Your task to perform on an android device: Search for Mexican restaurants on Maps Image 0: 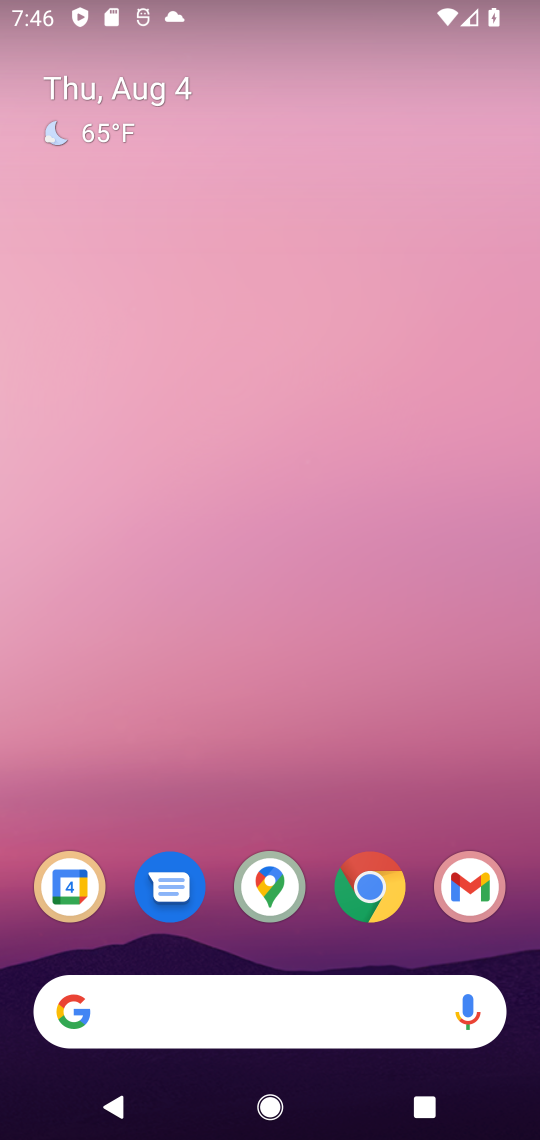
Step 0: drag from (211, 739) to (148, 256)
Your task to perform on an android device: Search for Mexican restaurants on Maps Image 1: 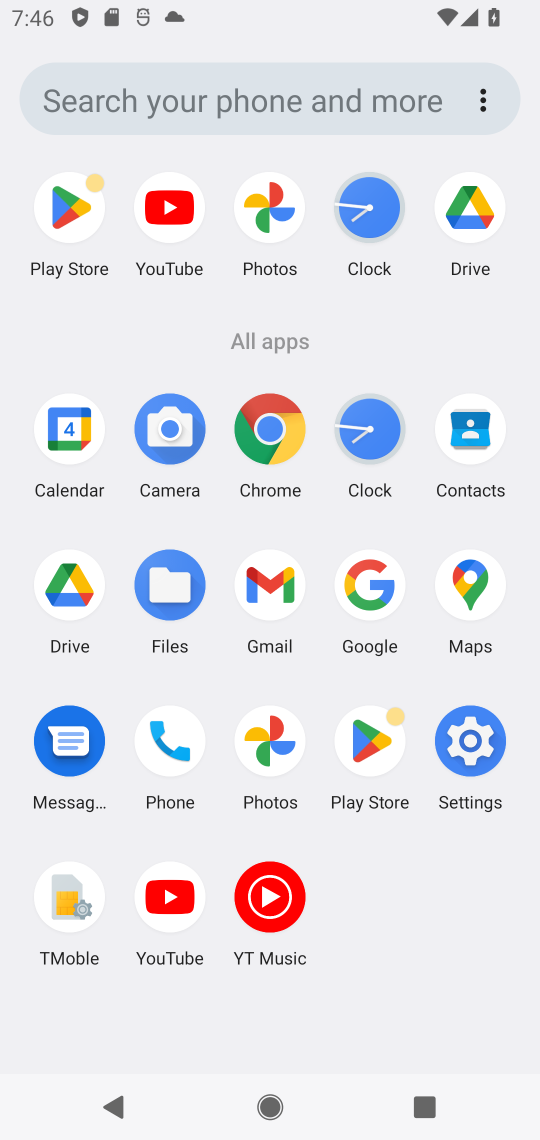
Step 1: click (475, 580)
Your task to perform on an android device: Search for Mexican restaurants on Maps Image 2: 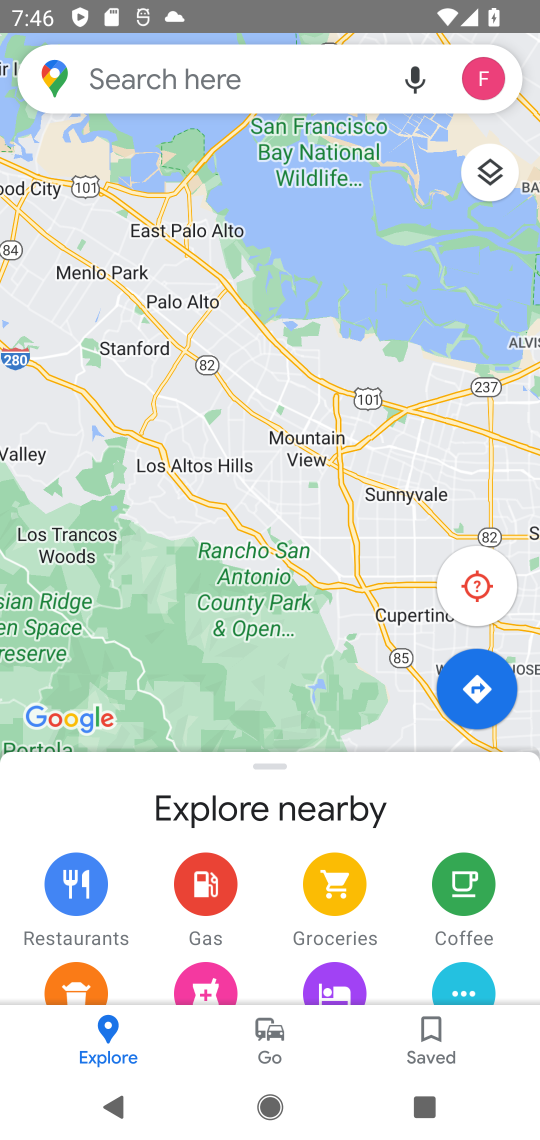
Step 2: click (178, 75)
Your task to perform on an android device: Search for Mexican restaurants on Maps Image 3: 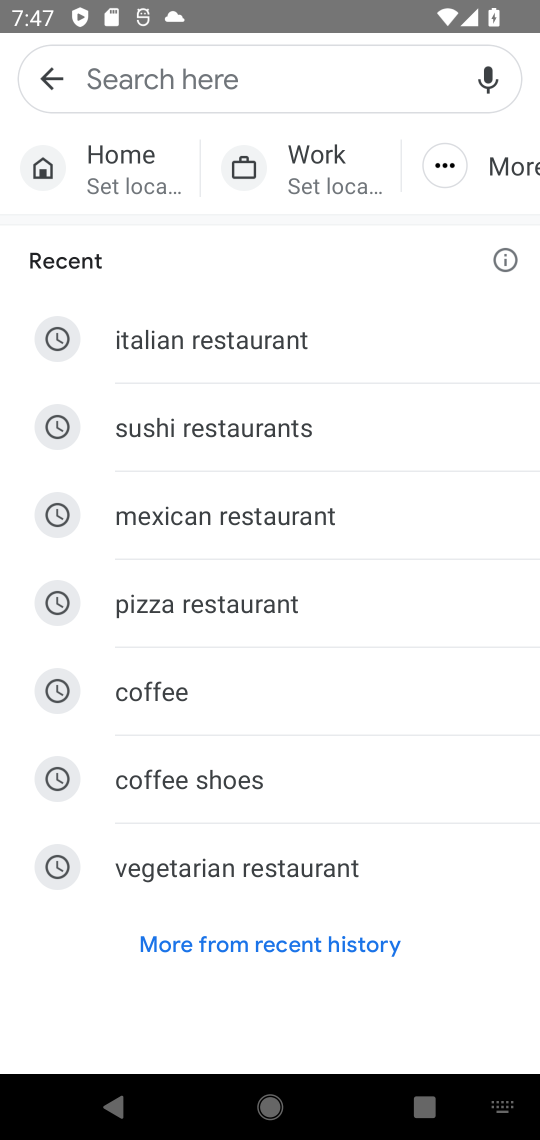
Step 3: click (171, 522)
Your task to perform on an android device: Search for Mexican restaurants on Maps Image 4: 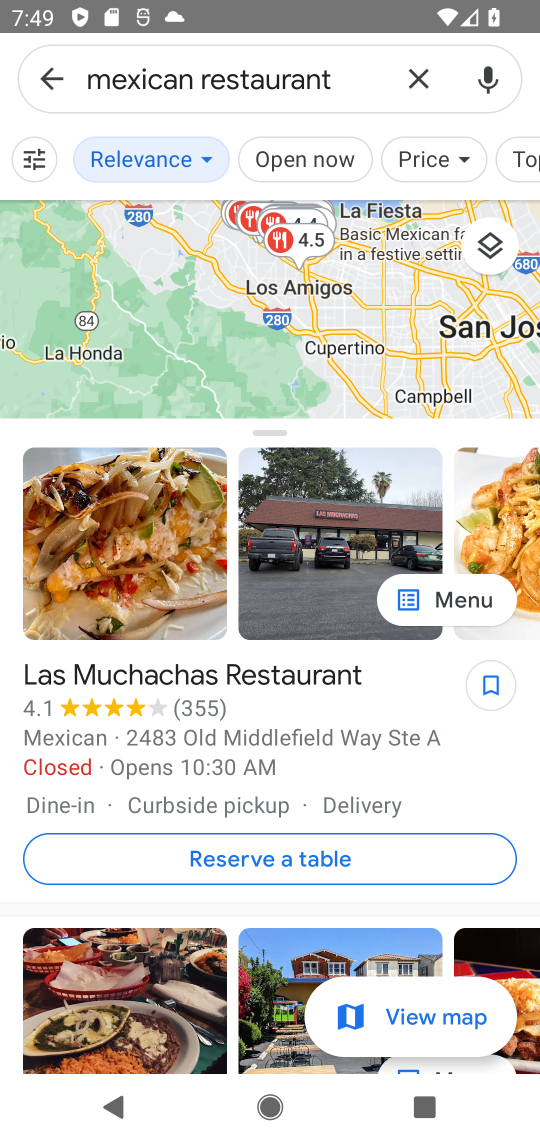
Step 4: task complete